Your task to perform on an android device: What time is it in Moscow? Image 0: 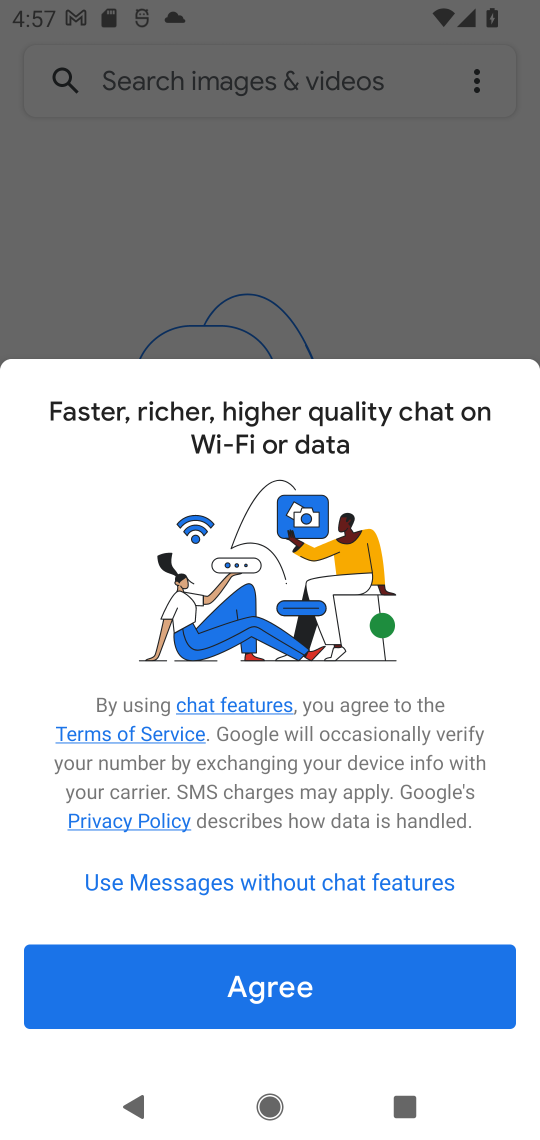
Step 0: press home button
Your task to perform on an android device: What time is it in Moscow? Image 1: 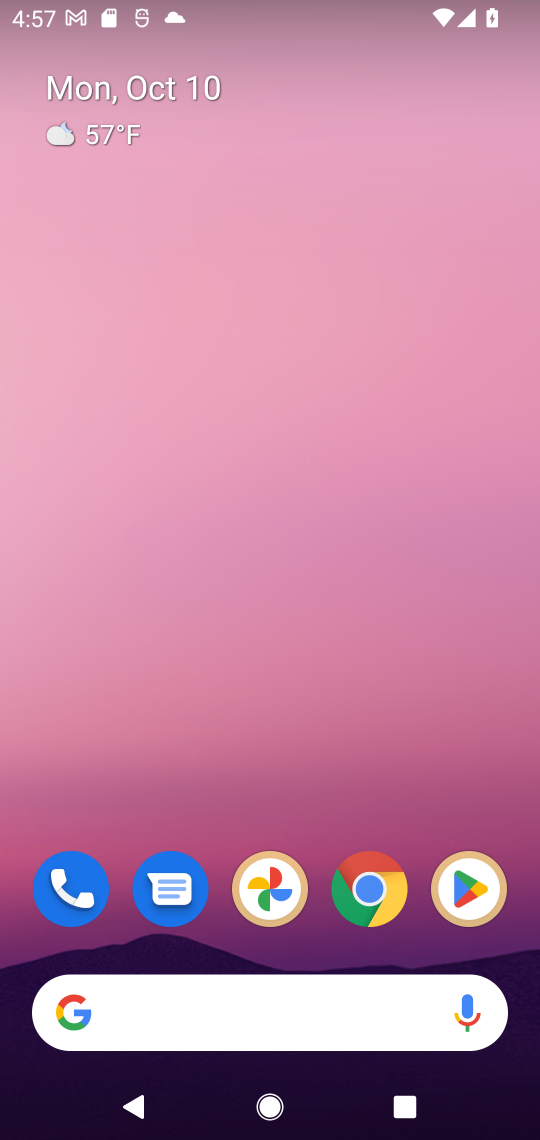
Step 1: click (374, 891)
Your task to perform on an android device: What time is it in Moscow? Image 2: 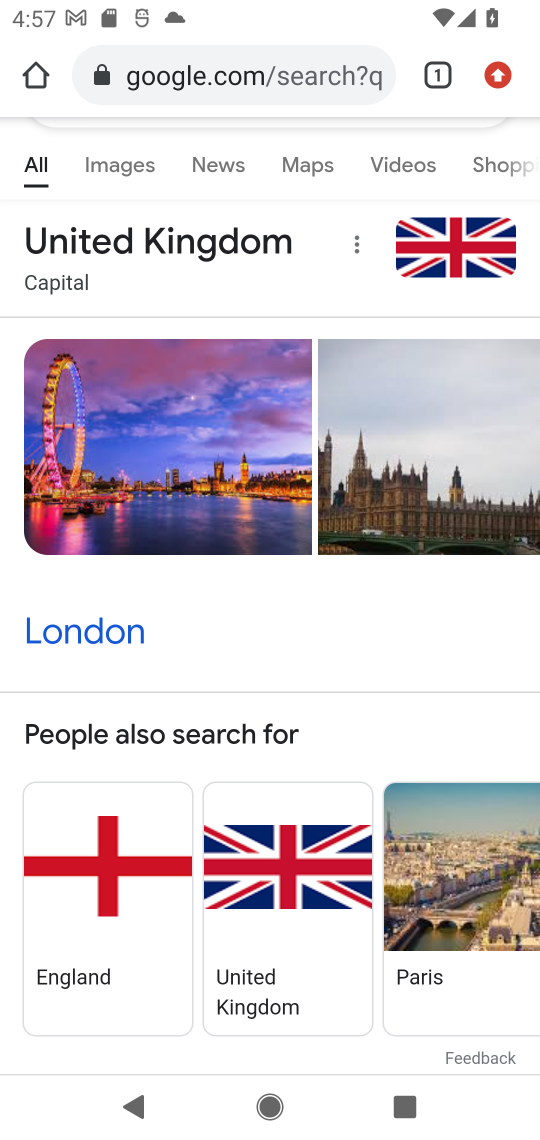
Step 2: click (292, 56)
Your task to perform on an android device: What time is it in Moscow? Image 3: 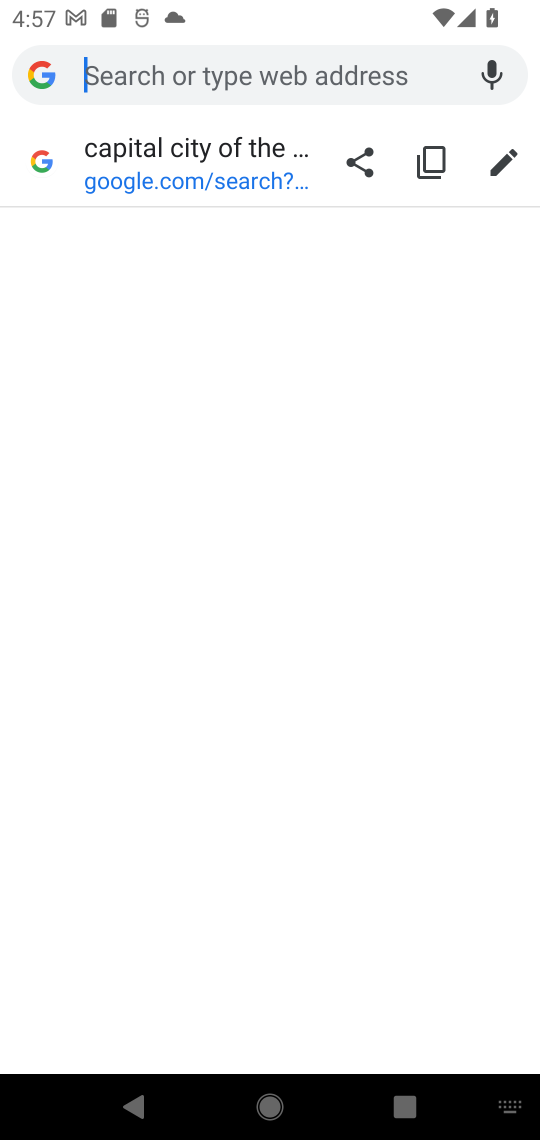
Step 3: type "time in moscow?"
Your task to perform on an android device: What time is it in Moscow? Image 4: 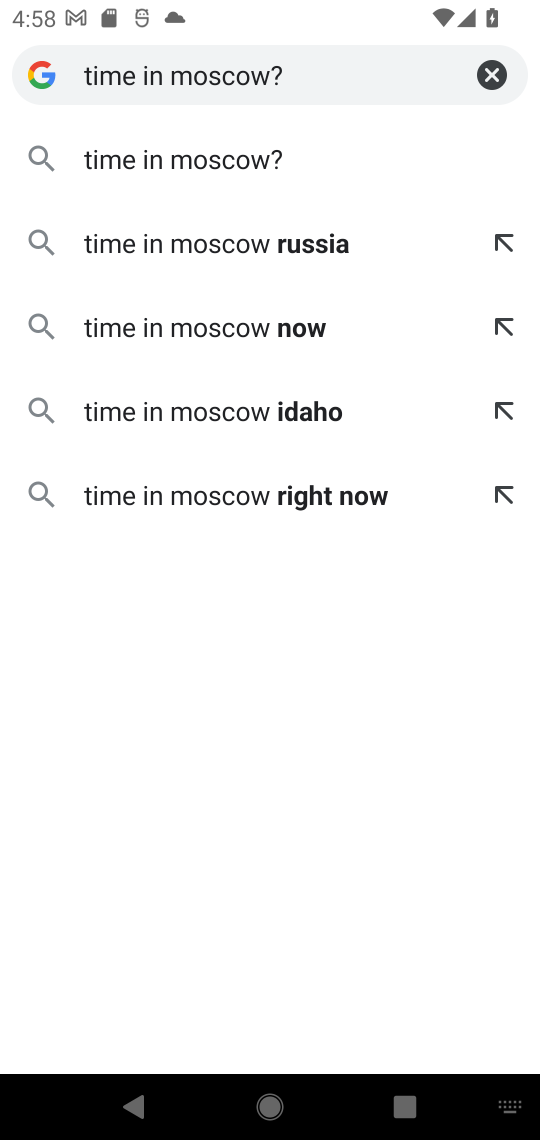
Step 4: click (185, 167)
Your task to perform on an android device: What time is it in Moscow? Image 5: 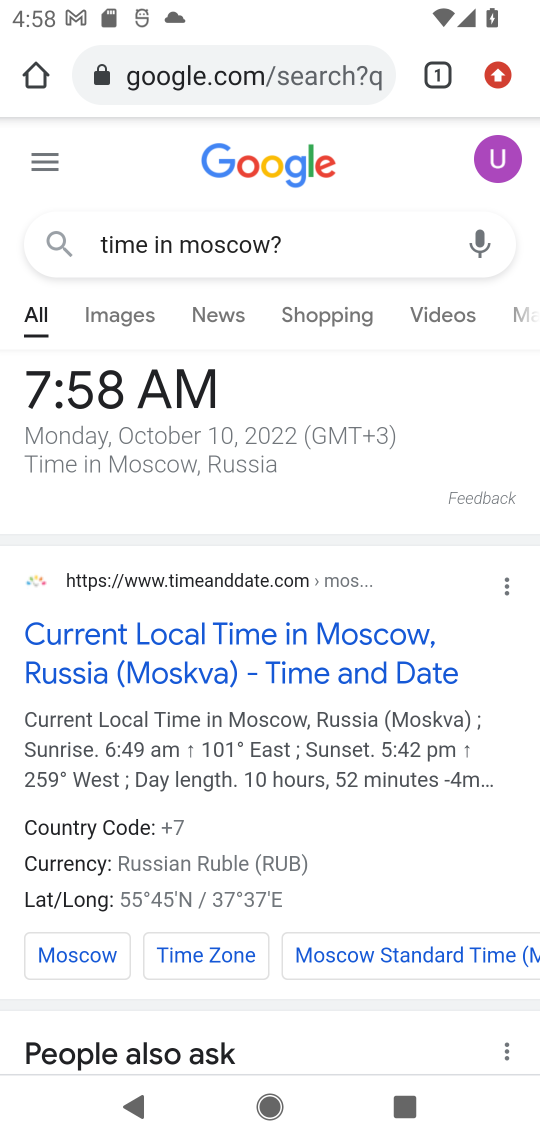
Step 5: task complete